Your task to perform on an android device: create a new album in the google photos Image 0: 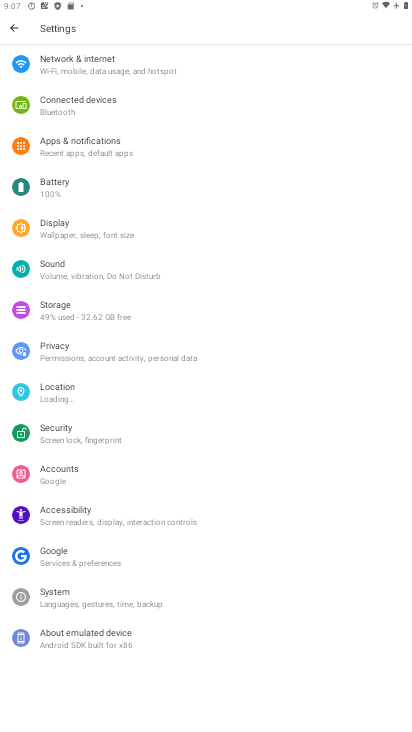
Step 0: press home button
Your task to perform on an android device: create a new album in the google photos Image 1: 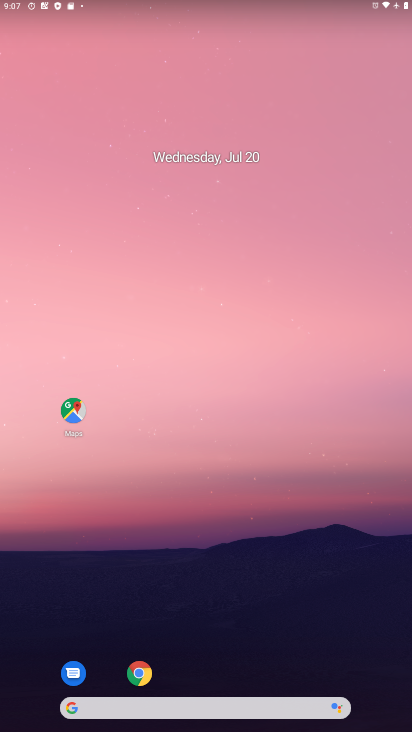
Step 1: drag from (201, 676) to (211, 130)
Your task to perform on an android device: create a new album in the google photos Image 2: 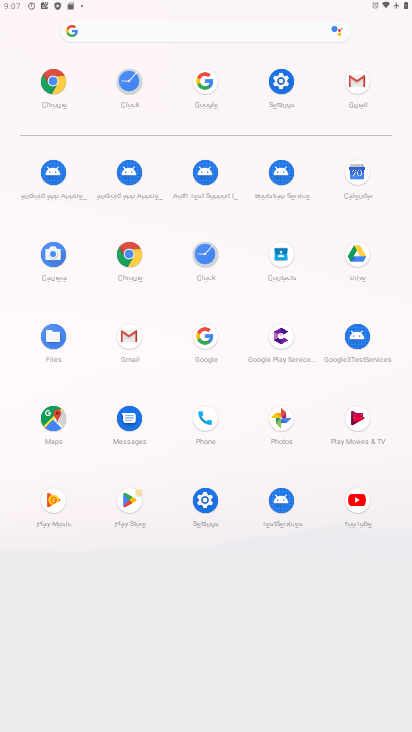
Step 2: click (279, 422)
Your task to perform on an android device: create a new album in the google photos Image 3: 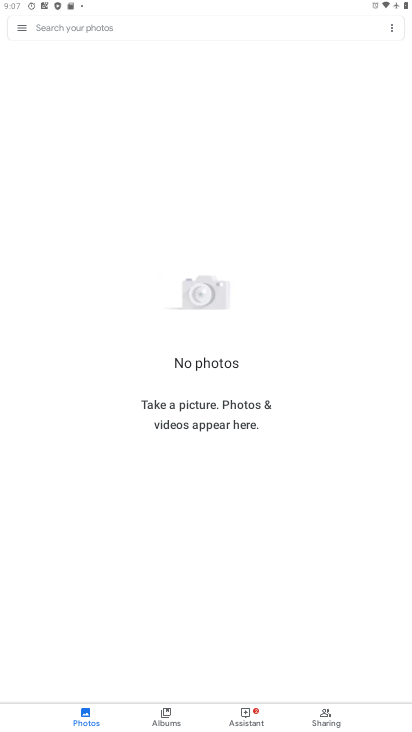
Step 3: click (162, 721)
Your task to perform on an android device: create a new album in the google photos Image 4: 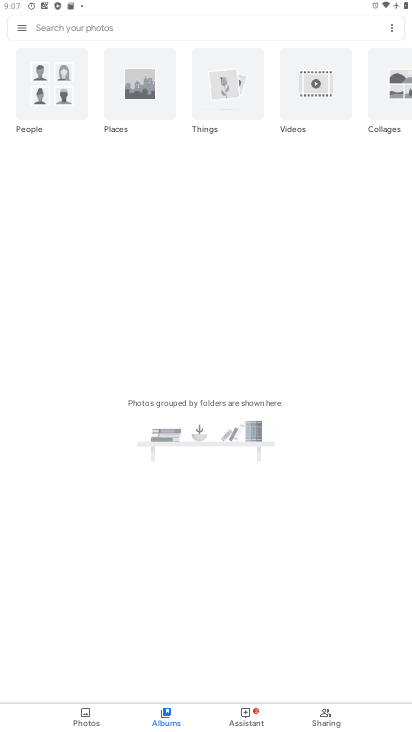
Step 4: click (148, 22)
Your task to perform on an android device: create a new album in the google photos Image 5: 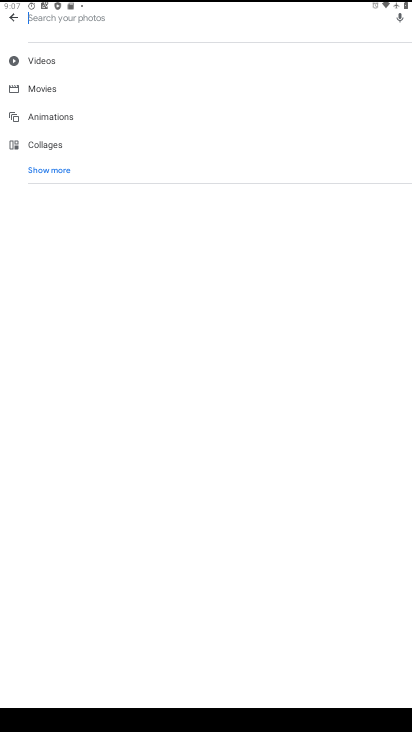
Step 5: task complete